Your task to perform on an android device: toggle translation in the chrome app Image 0: 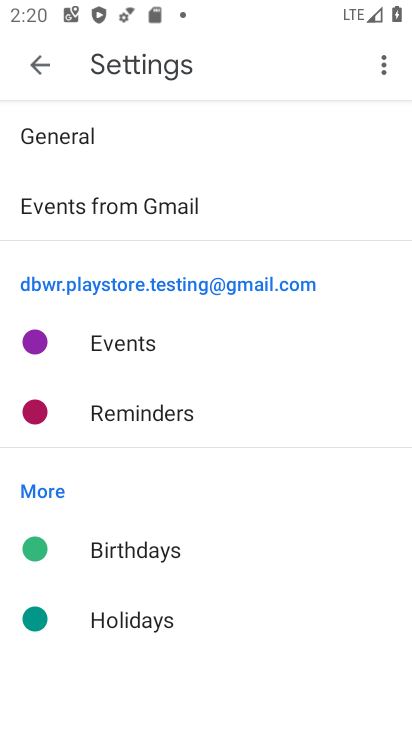
Step 0: press home button
Your task to perform on an android device: toggle translation in the chrome app Image 1: 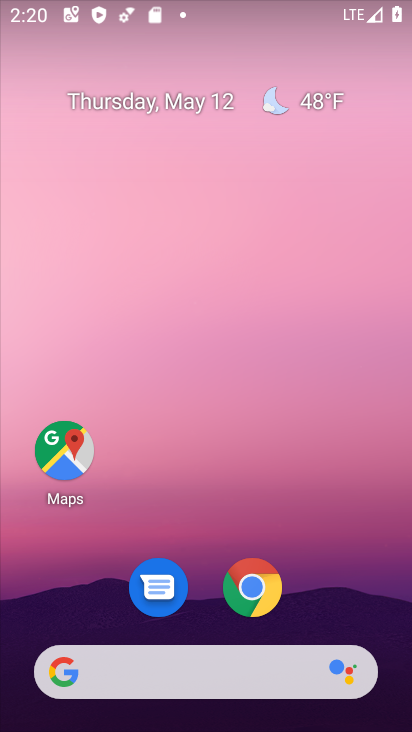
Step 1: drag from (275, 671) to (265, 211)
Your task to perform on an android device: toggle translation in the chrome app Image 2: 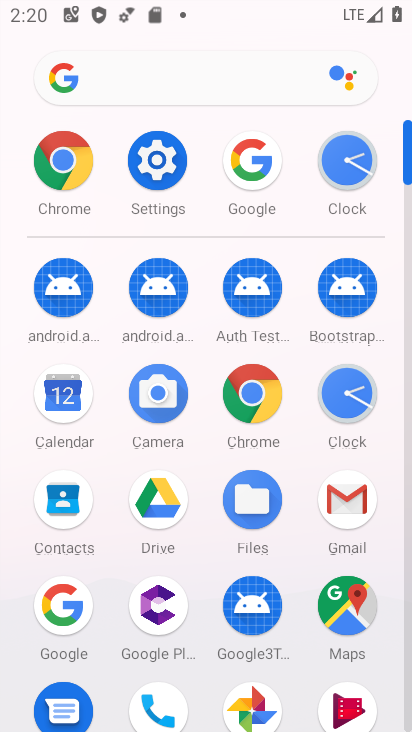
Step 2: click (267, 394)
Your task to perform on an android device: toggle translation in the chrome app Image 3: 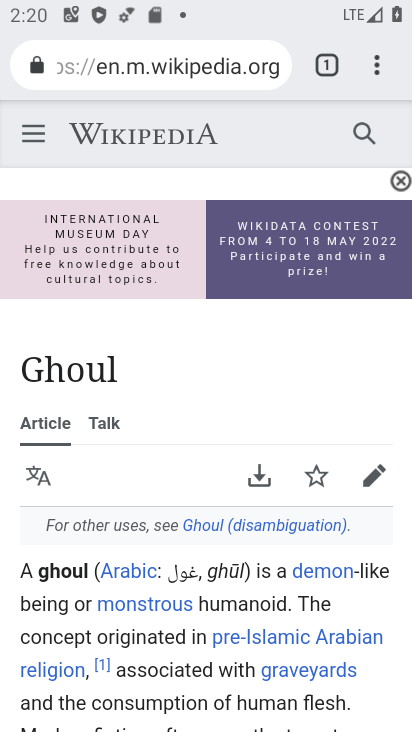
Step 3: click (372, 67)
Your task to perform on an android device: toggle translation in the chrome app Image 4: 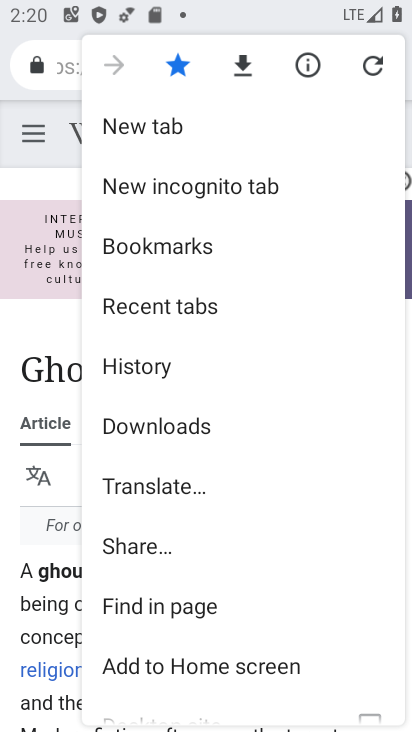
Step 4: click (205, 494)
Your task to perform on an android device: toggle translation in the chrome app Image 5: 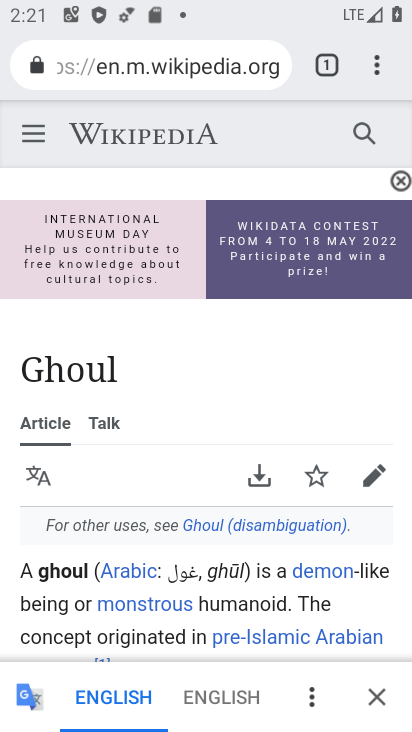
Step 5: click (316, 701)
Your task to perform on an android device: toggle translation in the chrome app Image 6: 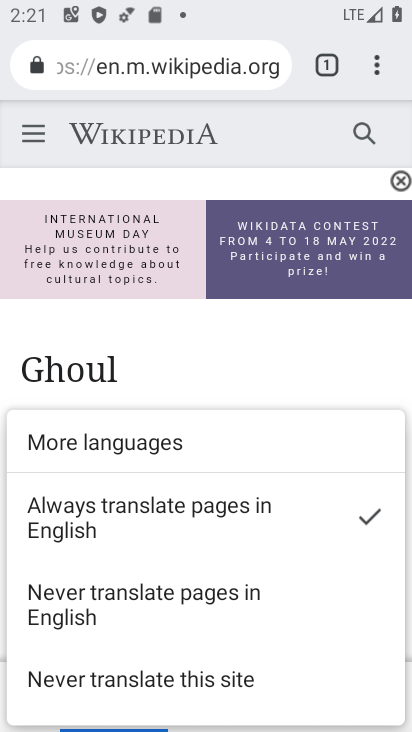
Step 6: click (182, 681)
Your task to perform on an android device: toggle translation in the chrome app Image 7: 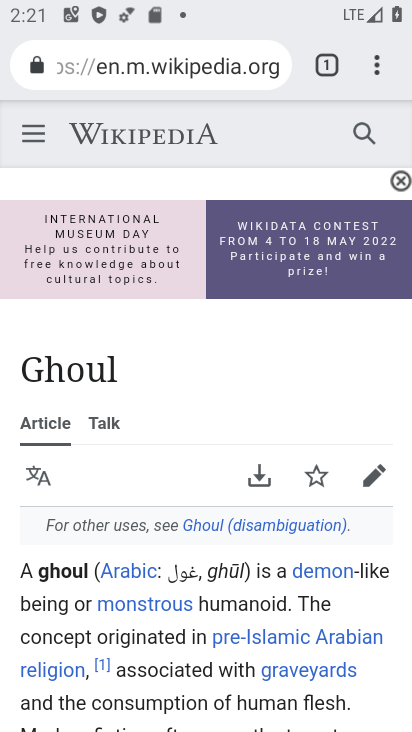
Step 7: task complete